Your task to perform on an android device: turn on the 12-hour format for clock Image 0: 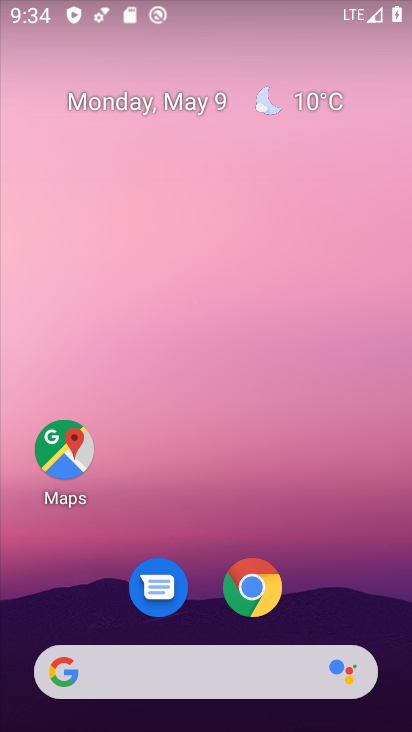
Step 0: drag from (358, 542) to (316, 61)
Your task to perform on an android device: turn on the 12-hour format for clock Image 1: 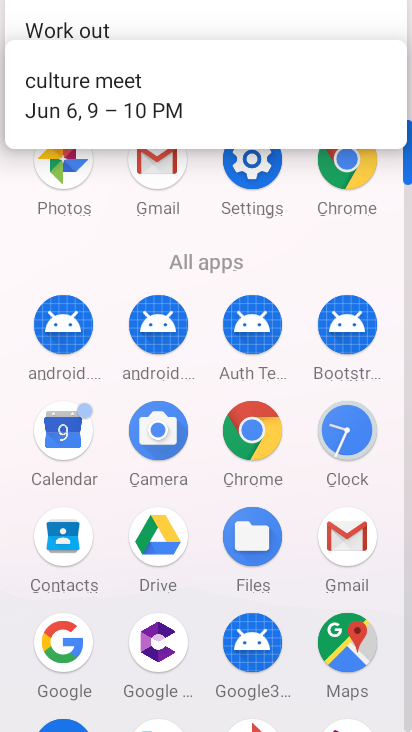
Step 1: click (339, 428)
Your task to perform on an android device: turn on the 12-hour format for clock Image 2: 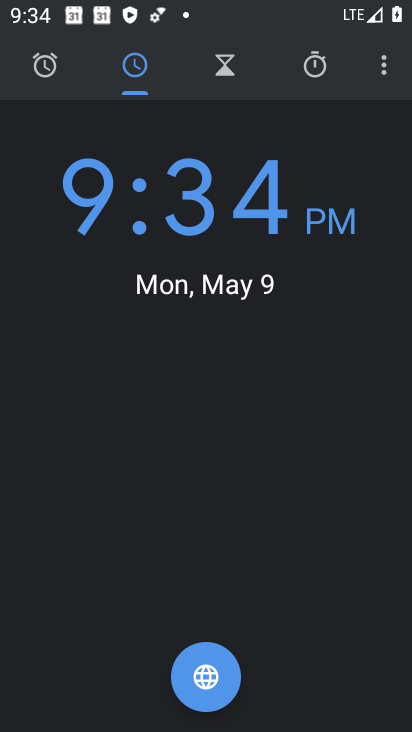
Step 2: click (381, 75)
Your task to perform on an android device: turn on the 12-hour format for clock Image 3: 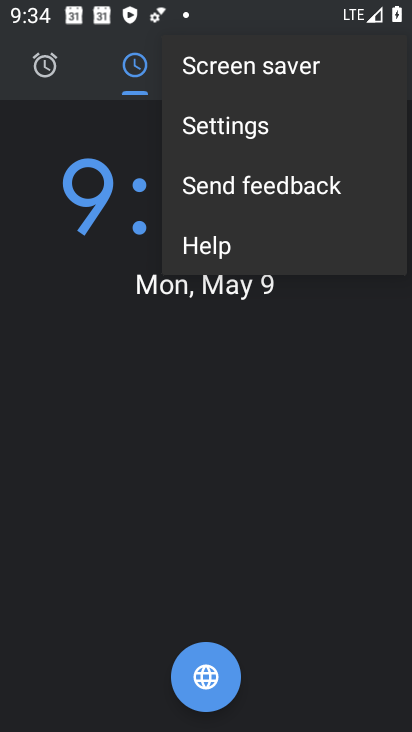
Step 3: click (262, 137)
Your task to perform on an android device: turn on the 12-hour format for clock Image 4: 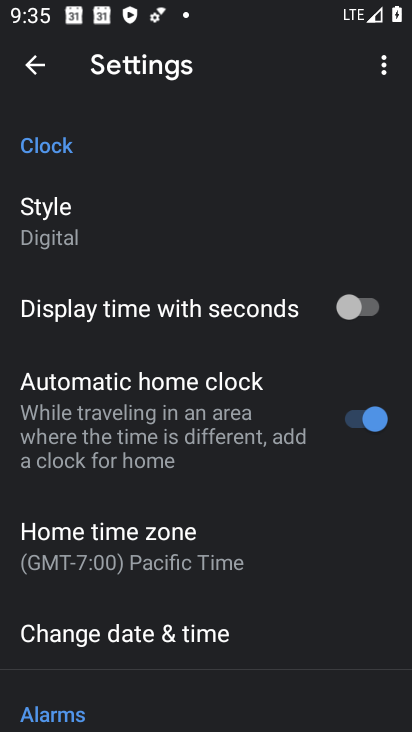
Step 4: click (190, 627)
Your task to perform on an android device: turn on the 12-hour format for clock Image 5: 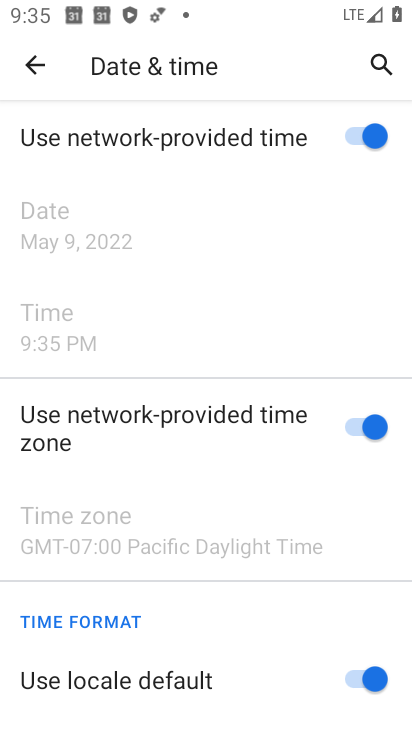
Step 5: task complete